Your task to perform on an android device: move a message to another label in the gmail app Image 0: 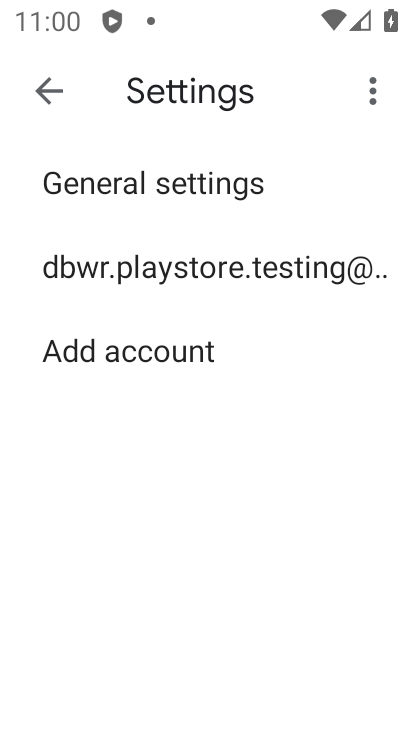
Step 0: click (42, 78)
Your task to perform on an android device: move a message to another label in the gmail app Image 1: 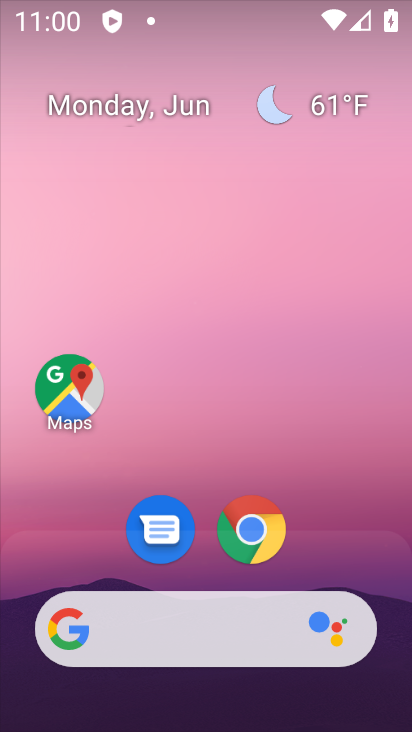
Step 1: drag from (121, 588) to (230, 67)
Your task to perform on an android device: move a message to another label in the gmail app Image 2: 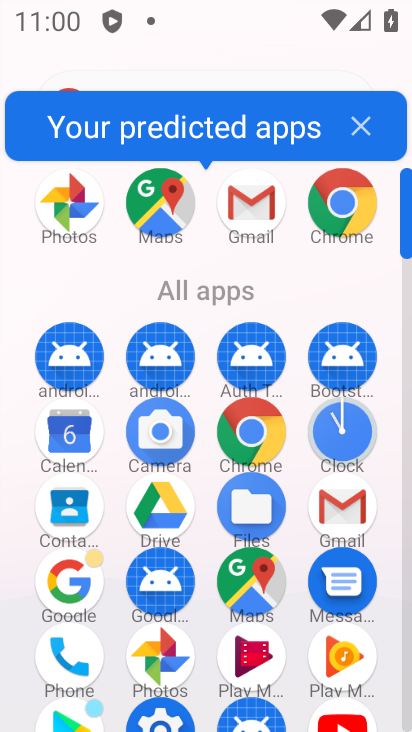
Step 2: click (323, 510)
Your task to perform on an android device: move a message to another label in the gmail app Image 3: 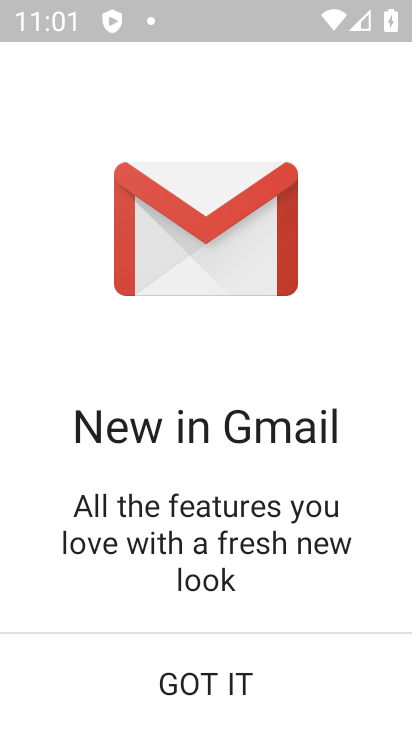
Step 3: click (205, 711)
Your task to perform on an android device: move a message to another label in the gmail app Image 4: 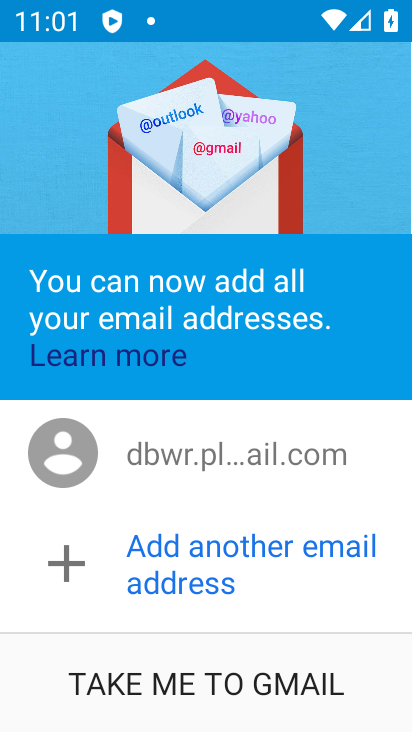
Step 4: click (286, 699)
Your task to perform on an android device: move a message to another label in the gmail app Image 5: 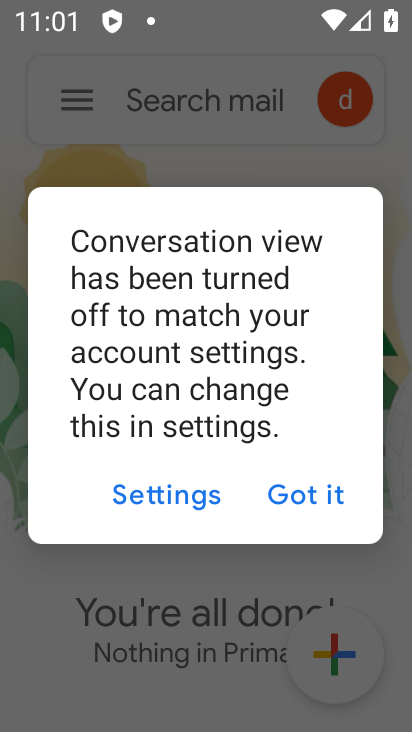
Step 5: click (328, 503)
Your task to perform on an android device: move a message to another label in the gmail app Image 6: 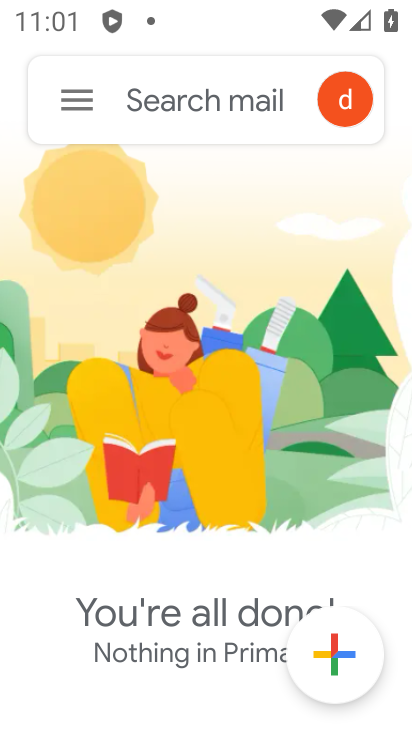
Step 6: click (86, 110)
Your task to perform on an android device: move a message to another label in the gmail app Image 7: 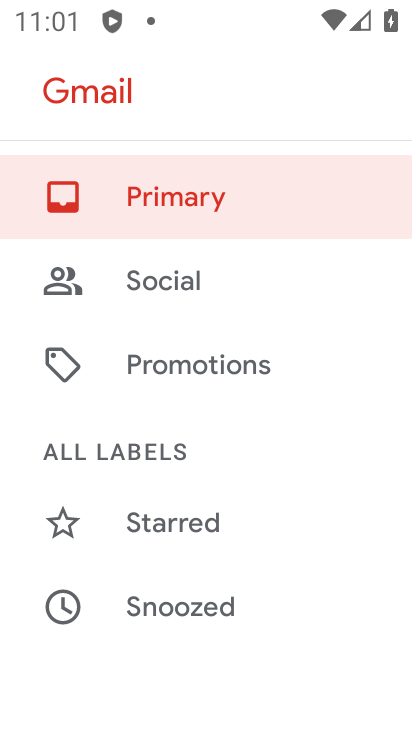
Step 7: drag from (181, 553) to (262, 179)
Your task to perform on an android device: move a message to another label in the gmail app Image 8: 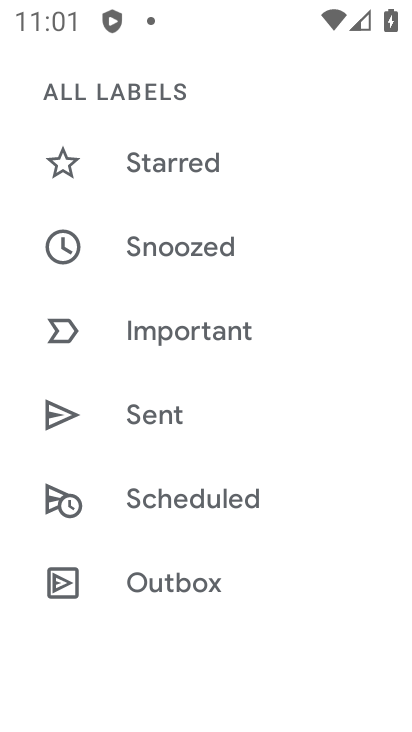
Step 8: drag from (239, 551) to (304, 174)
Your task to perform on an android device: move a message to another label in the gmail app Image 9: 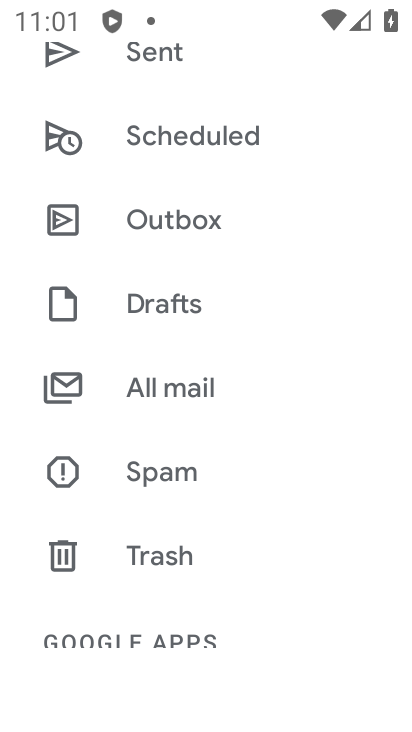
Step 9: click (237, 383)
Your task to perform on an android device: move a message to another label in the gmail app Image 10: 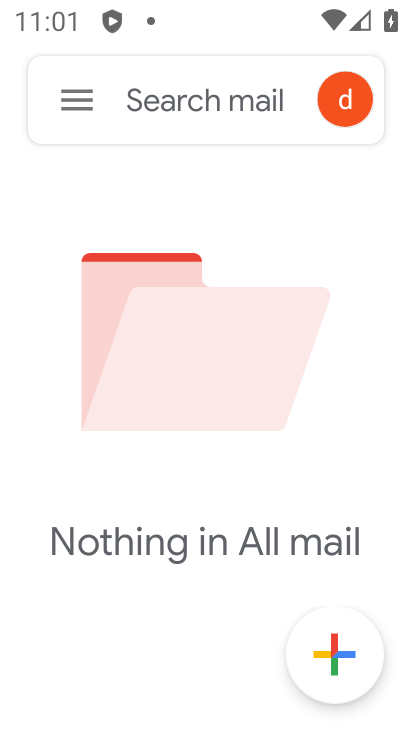
Step 10: task complete